Your task to perform on an android device: change your default location settings in chrome Image 0: 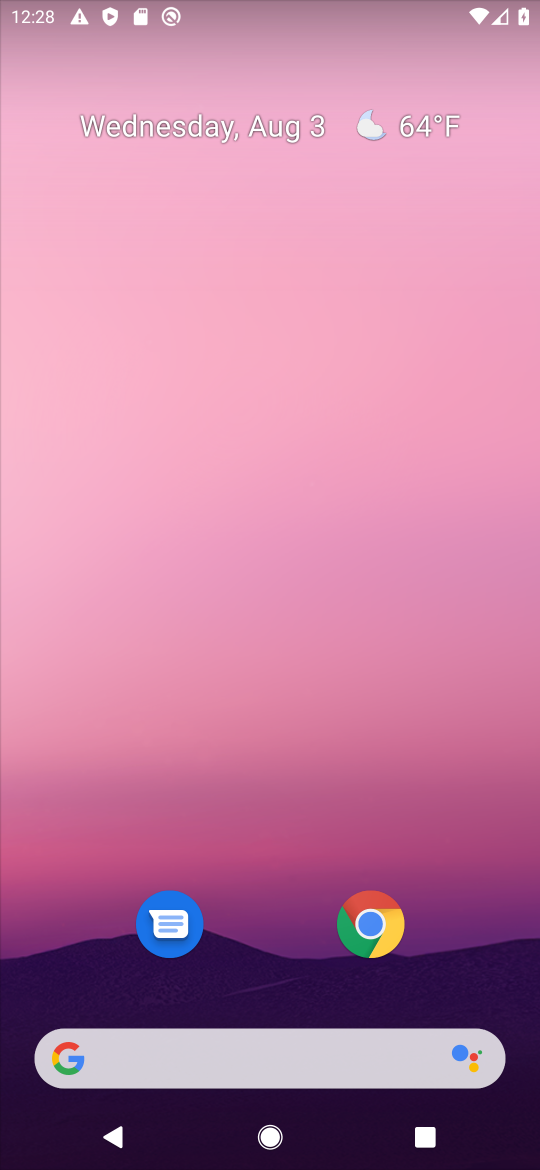
Step 0: press back button
Your task to perform on an android device: change your default location settings in chrome Image 1: 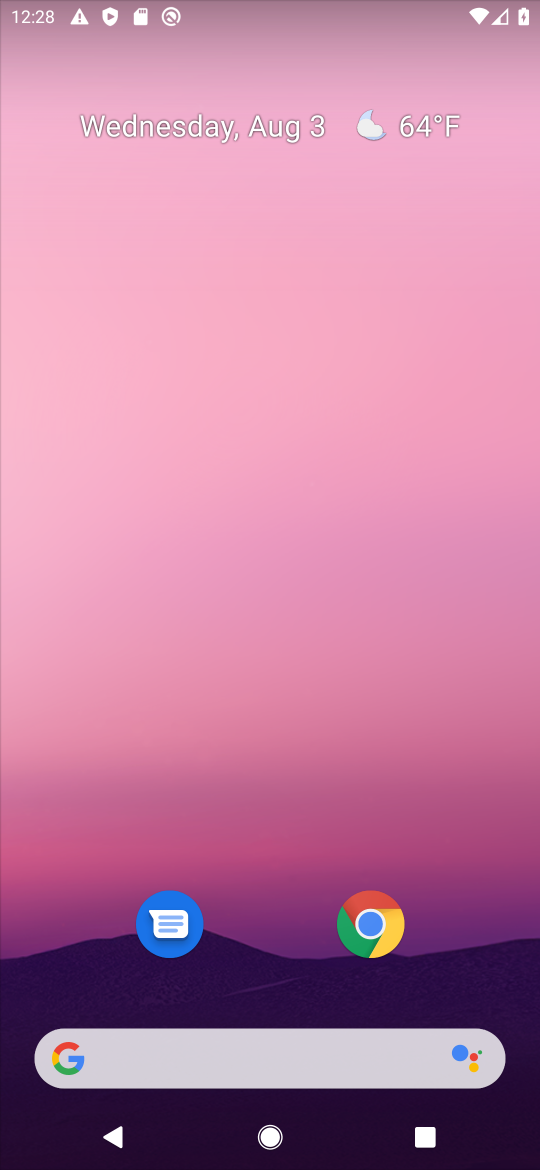
Step 1: click (363, 915)
Your task to perform on an android device: change your default location settings in chrome Image 2: 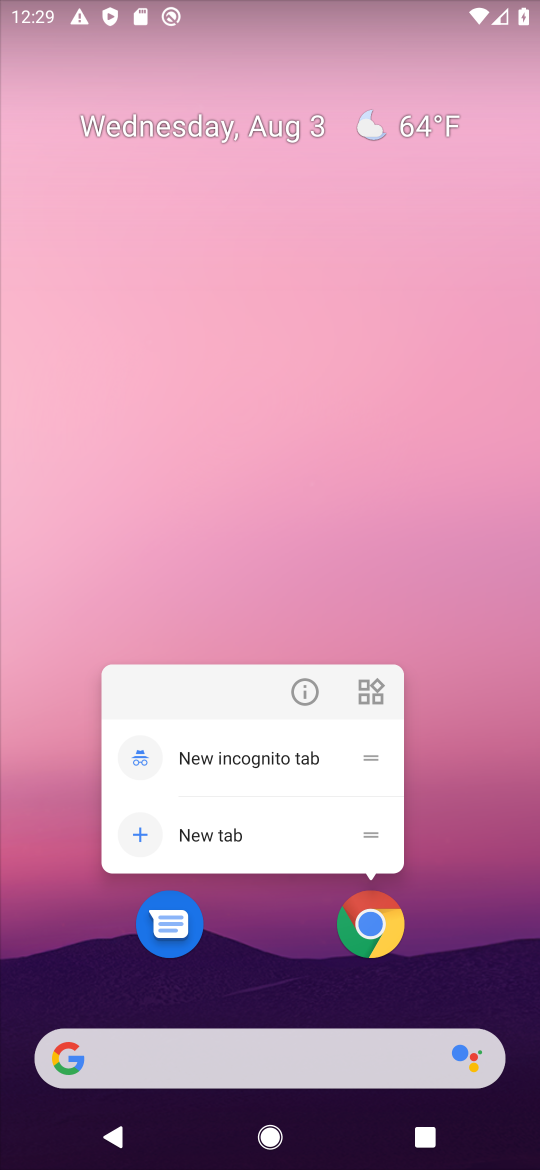
Step 2: click (362, 927)
Your task to perform on an android device: change your default location settings in chrome Image 3: 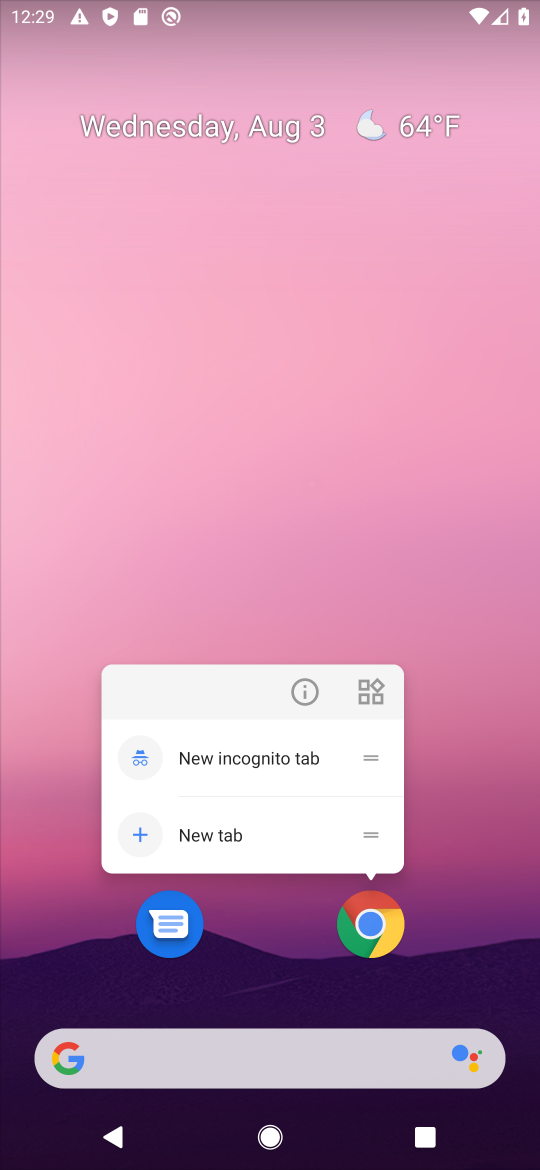
Step 3: click (378, 934)
Your task to perform on an android device: change your default location settings in chrome Image 4: 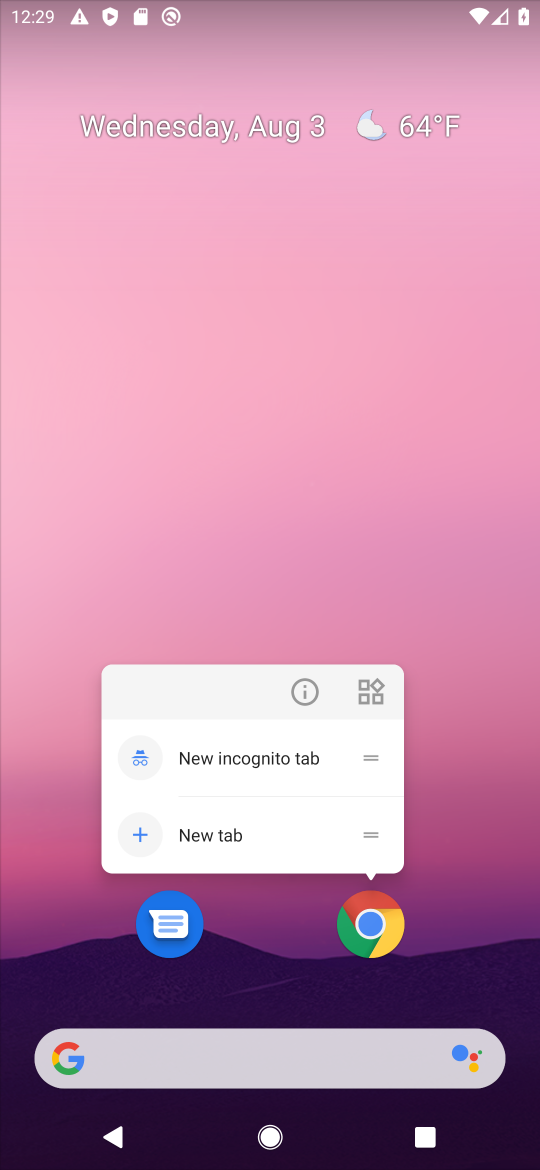
Step 4: click (378, 934)
Your task to perform on an android device: change your default location settings in chrome Image 5: 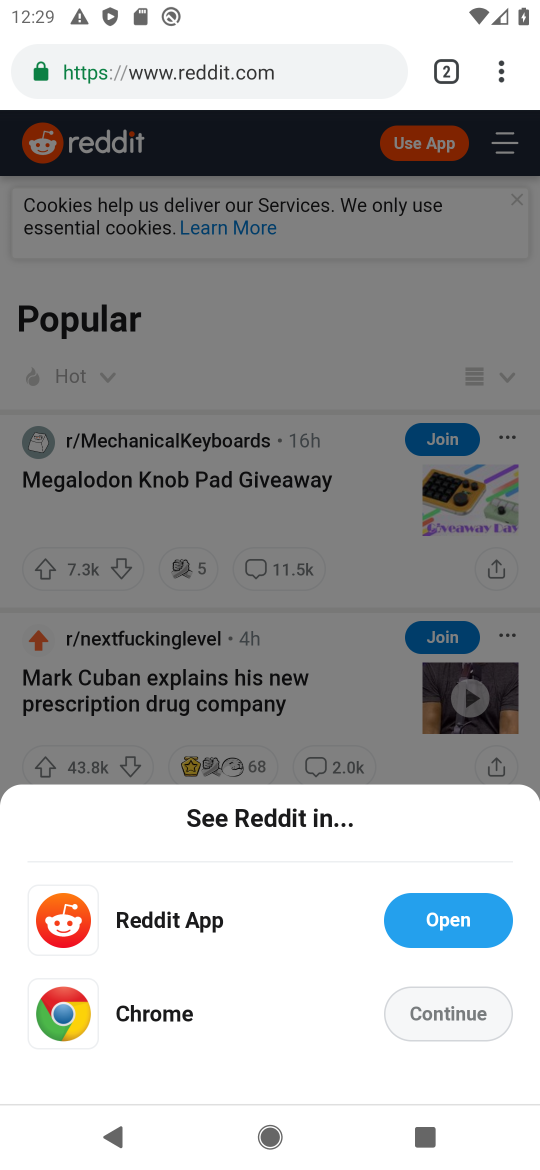
Step 5: drag from (504, 60) to (253, 875)
Your task to perform on an android device: change your default location settings in chrome Image 6: 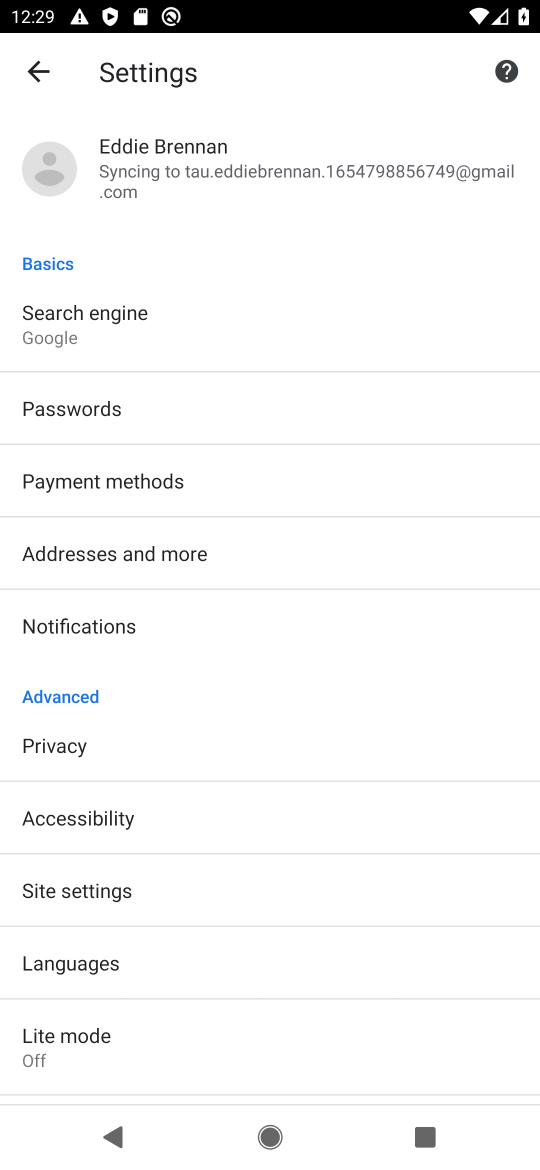
Step 6: drag from (175, 986) to (316, 257)
Your task to perform on an android device: change your default location settings in chrome Image 7: 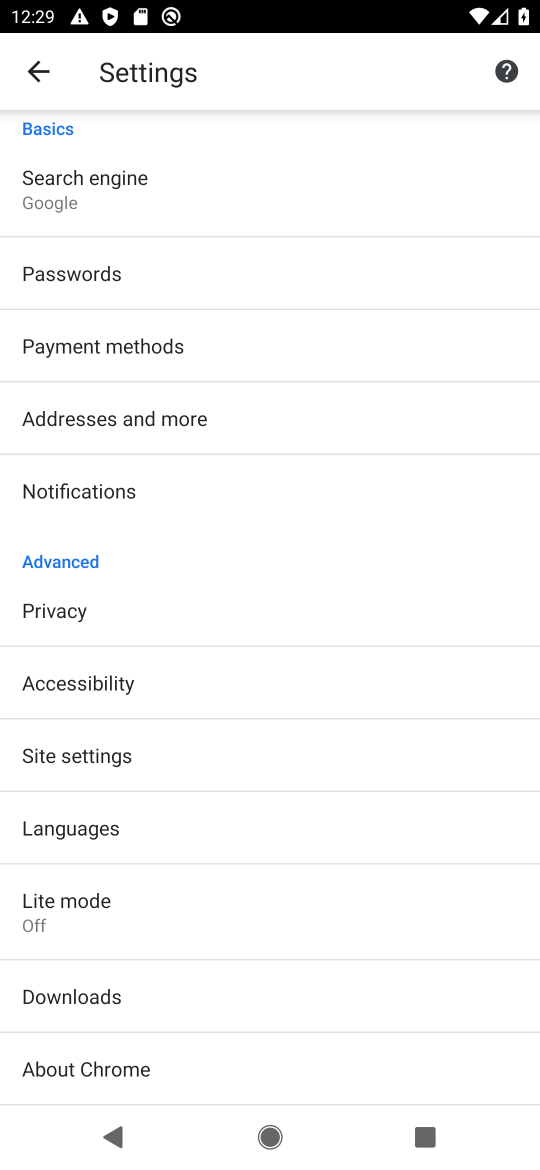
Step 7: click (112, 768)
Your task to perform on an android device: change your default location settings in chrome Image 8: 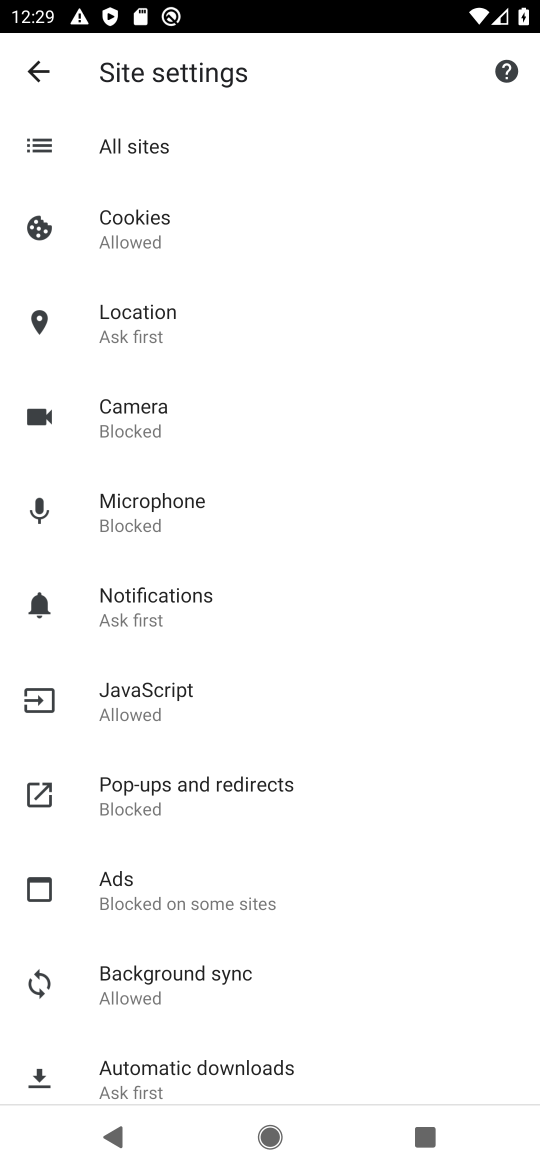
Step 8: click (158, 301)
Your task to perform on an android device: change your default location settings in chrome Image 9: 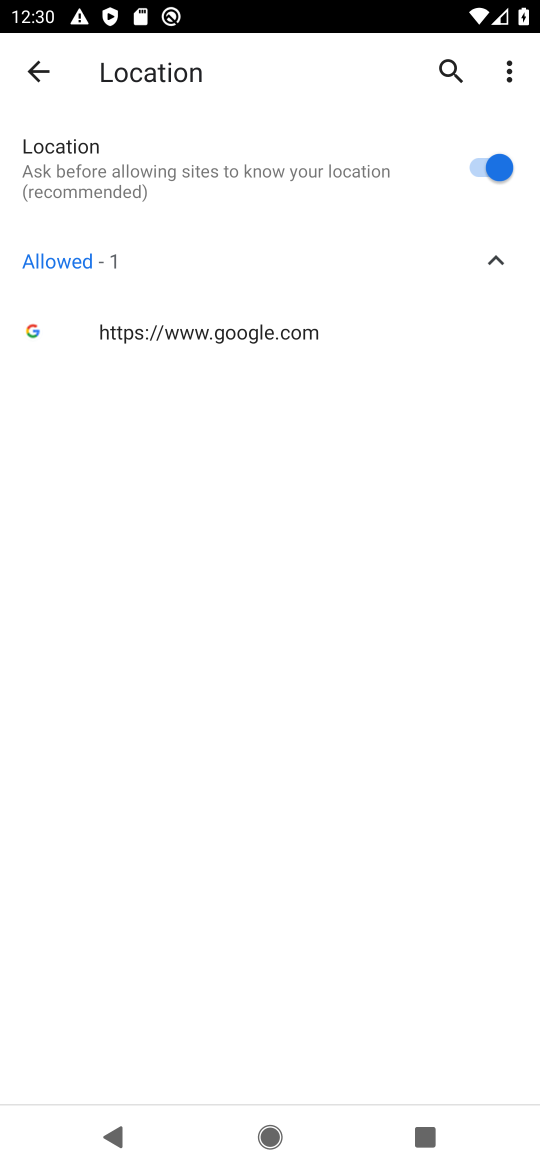
Step 9: task complete